Your task to perform on an android device: Search for macbook pro on costco, select the first entry, add it to the cart, then select checkout. Image 0: 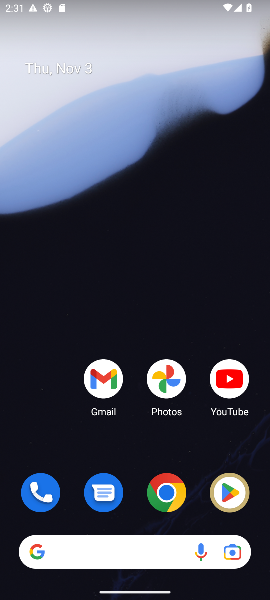
Step 0: click (164, 493)
Your task to perform on an android device: Search for macbook pro on costco, select the first entry, add it to the cart, then select checkout. Image 1: 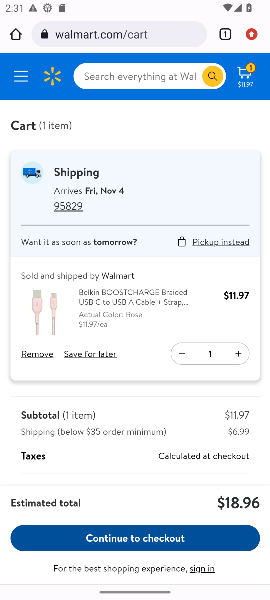
Step 1: click (126, 28)
Your task to perform on an android device: Search for macbook pro on costco, select the first entry, add it to the cart, then select checkout. Image 2: 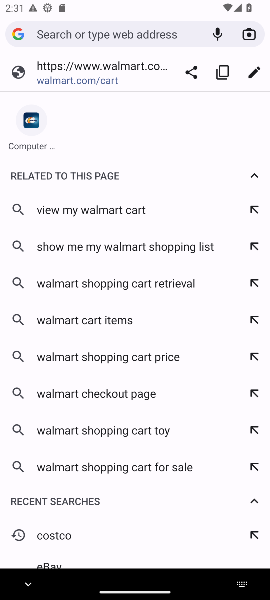
Step 2: type "costco"
Your task to perform on an android device: Search for macbook pro on costco, select the first entry, add it to the cart, then select checkout. Image 3: 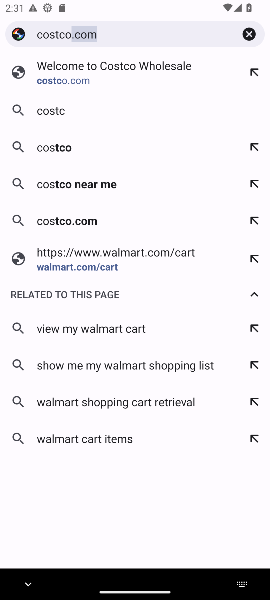
Step 3: type ""
Your task to perform on an android device: Search for macbook pro on costco, select the first entry, add it to the cart, then select checkout. Image 4: 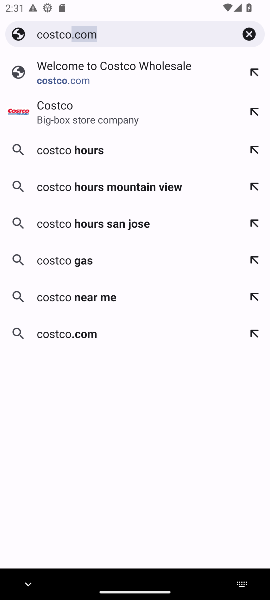
Step 4: click (132, 75)
Your task to perform on an android device: Search for macbook pro on costco, select the first entry, add it to the cart, then select checkout. Image 5: 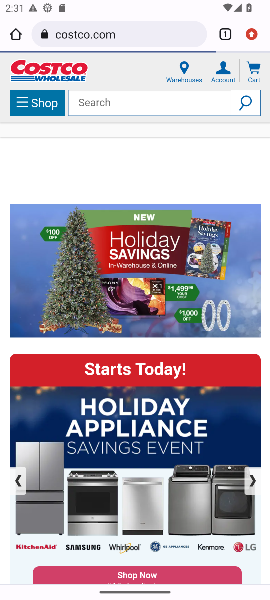
Step 5: click (178, 106)
Your task to perform on an android device: Search for macbook pro on costco, select the first entry, add it to the cart, then select checkout. Image 6: 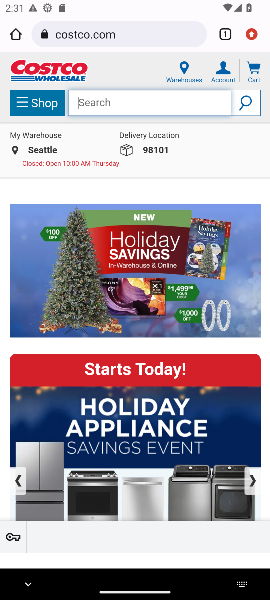
Step 6: type "macbook pro"
Your task to perform on an android device: Search for macbook pro on costco, select the first entry, add it to the cart, then select checkout. Image 7: 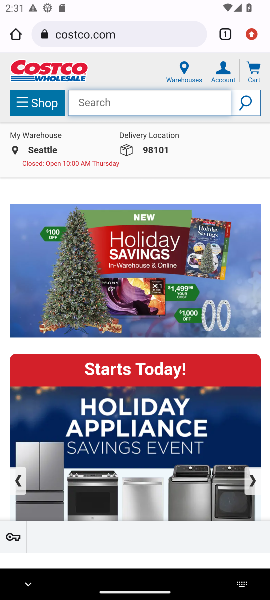
Step 7: type ""
Your task to perform on an android device: Search for macbook pro on costco, select the first entry, add it to the cart, then select checkout. Image 8: 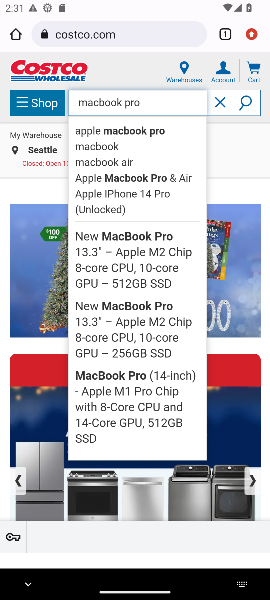
Step 8: click (146, 132)
Your task to perform on an android device: Search for macbook pro on costco, select the first entry, add it to the cart, then select checkout. Image 9: 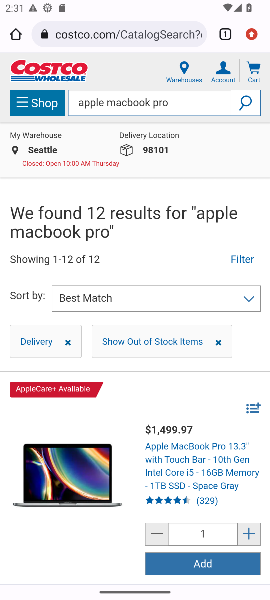
Step 9: click (199, 457)
Your task to perform on an android device: Search for macbook pro on costco, select the first entry, add it to the cart, then select checkout. Image 10: 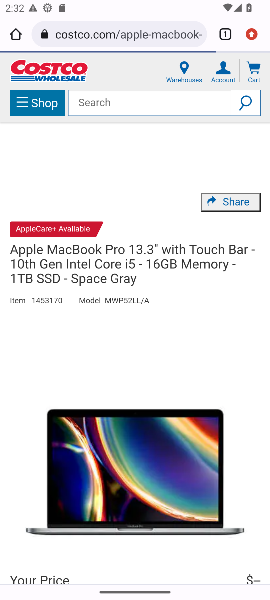
Step 10: drag from (158, 504) to (138, 222)
Your task to perform on an android device: Search for macbook pro on costco, select the first entry, add it to the cart, then select checkout. Image 11: 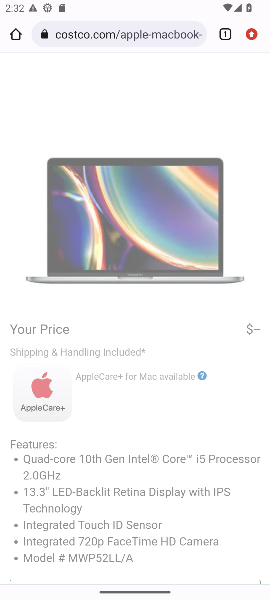
Step 11: drag from (164, 421) to (141, 214)
Your task to perform on an android device: Search for macbook pro on costco, select the first entry, add it to the cart, then select checkout. Image 12: 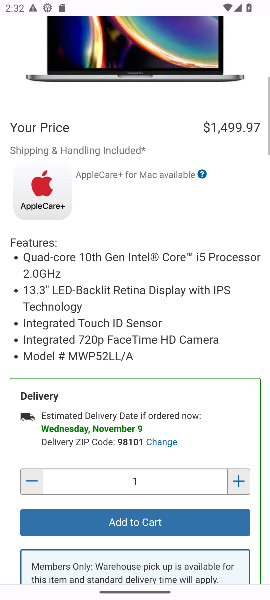
Step 12: drag from (194, 444) to (181, 253)
Your task to perform on an android device: Search for macbook pro on costco, select the first entry, add it to the cart, then select checkout. Image 13: 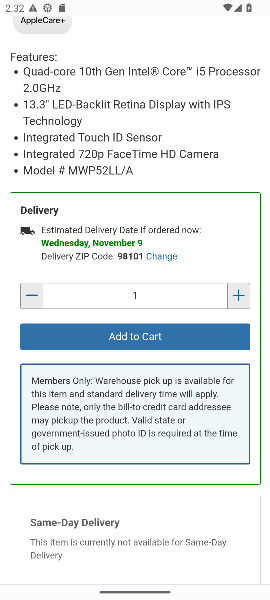
Step 13: click (150, 342)
Your task to perform on an android device: Search for macbook pro on costco, select the first entry, add it to the cart, then select checkout. Image 14: 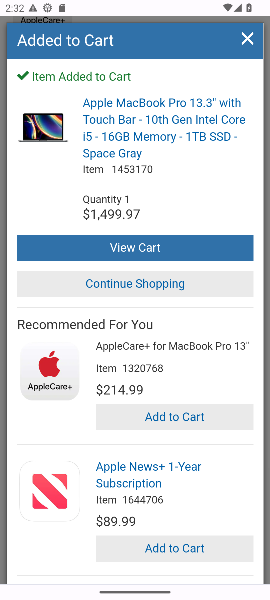
Step 14: click (142, 244)
Your task to perform on an android device: Search for macbook pro on costco, select the first entry, add it to the cart, then select checkout. Image 15: 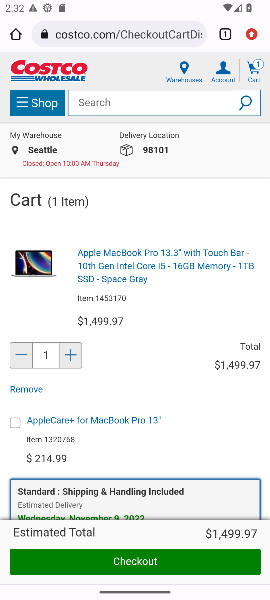
Step 15: click (196, 560)
Your task to perform on an android device: Search for macbook pro on costco, select the first entry, add it to the cart, then select checkout. Image 16: 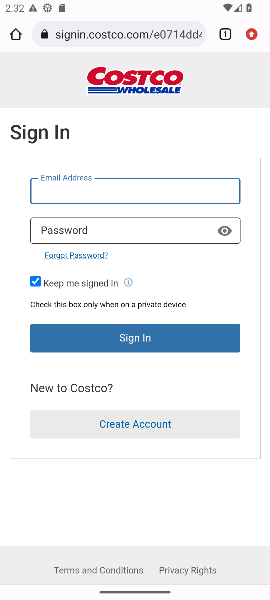
Step 16: task complete